Your task to perform on an android device: add a label to a message in the gmail app Image 0: 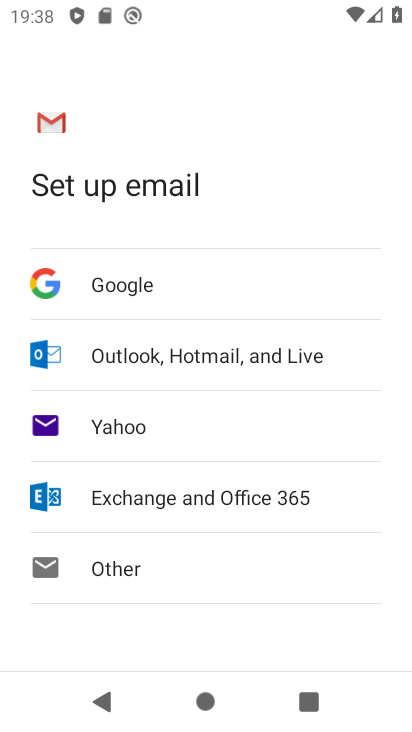
Step 0: press home button
Your task to perform on an android device: add a label to a message in the gmail app Image 1: 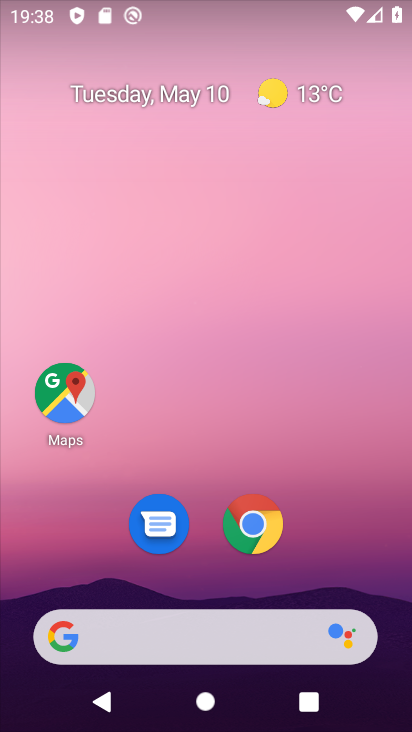
Step 1: drag from (321, 511) to (337, 5)
Your task to perform on an android device: add a label to a message in the gmail app Image 2: 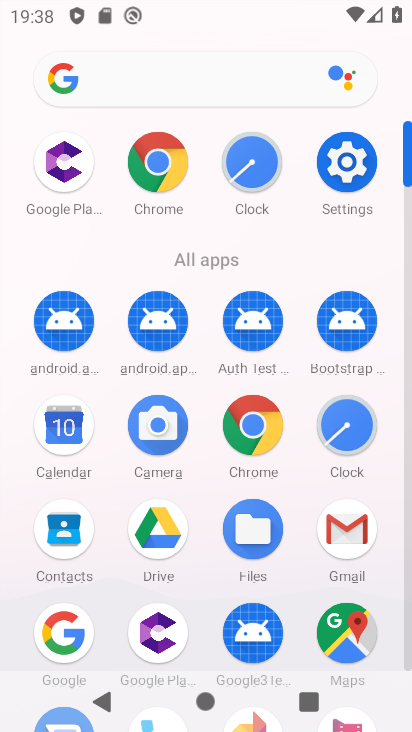
Step 2: click (352, 514)
Your task to perform on an android device: add a label to a message in the gmail app Image 3: 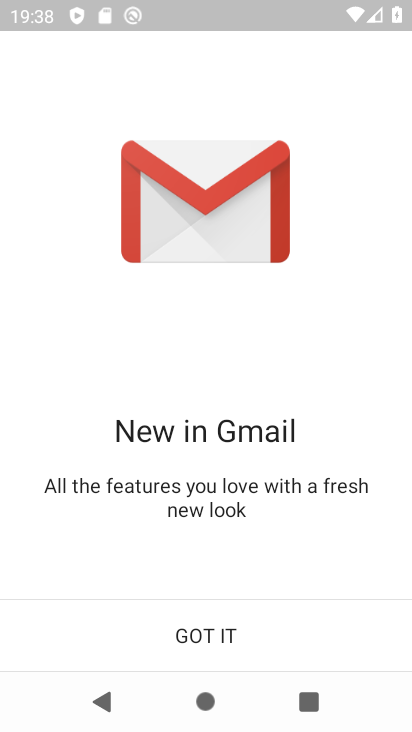
Step 3: click (248, 636)
Your task to perform on an android device: add a label to a message in the gmail app Image 4: 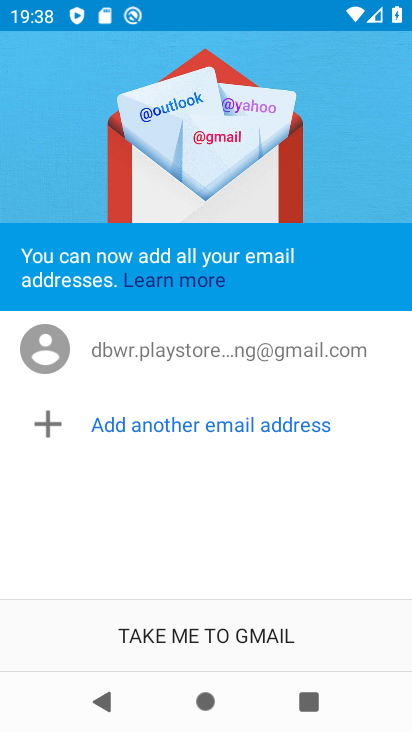
Step 4: click (252, 649)
Your task to perform on an android device: add a label to a message in the gmail app Image 5: 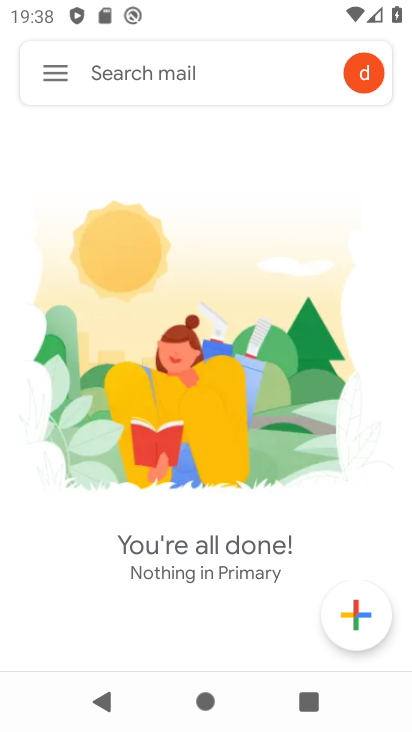
Step 5: click (56, 62)
Your task to perform on an android device: add a label to a message in the gmail app Image 6: 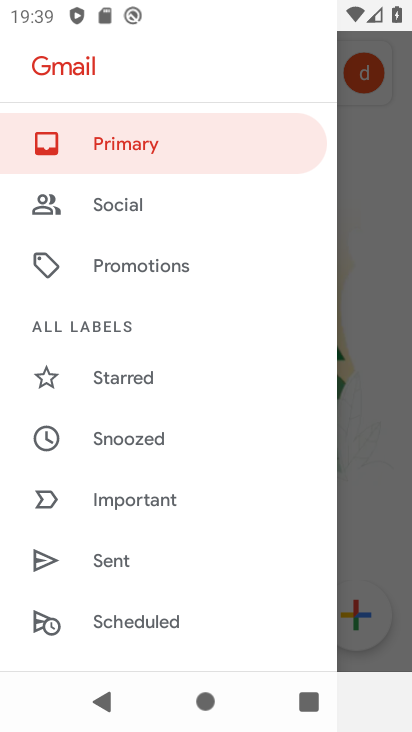
Step 6: drag from (183, 565) to (228, 128)
Your task to perform on an android device: add a label to a message in the gmail app Image 7: 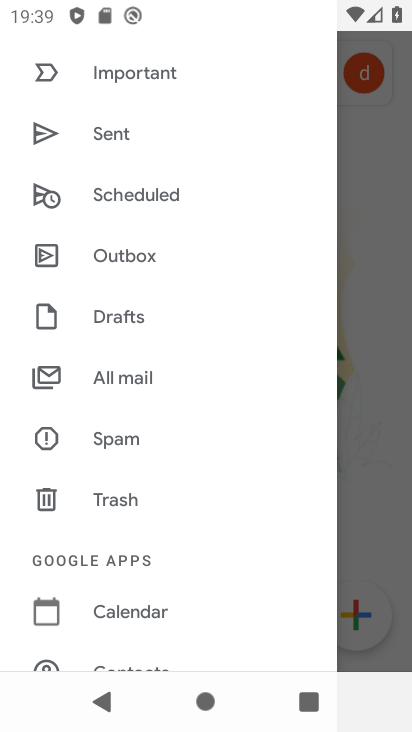
Step 7: click (174, 373)
Your task to perform on an android device: add a label to a message in the gmail app Image 8: 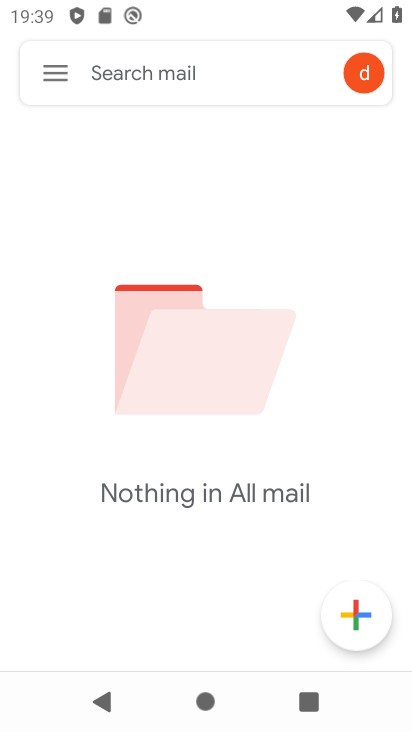
Step 8: task complete